Your task to perform on an android device: How do I get to the nearest Starbucks? Image 0: 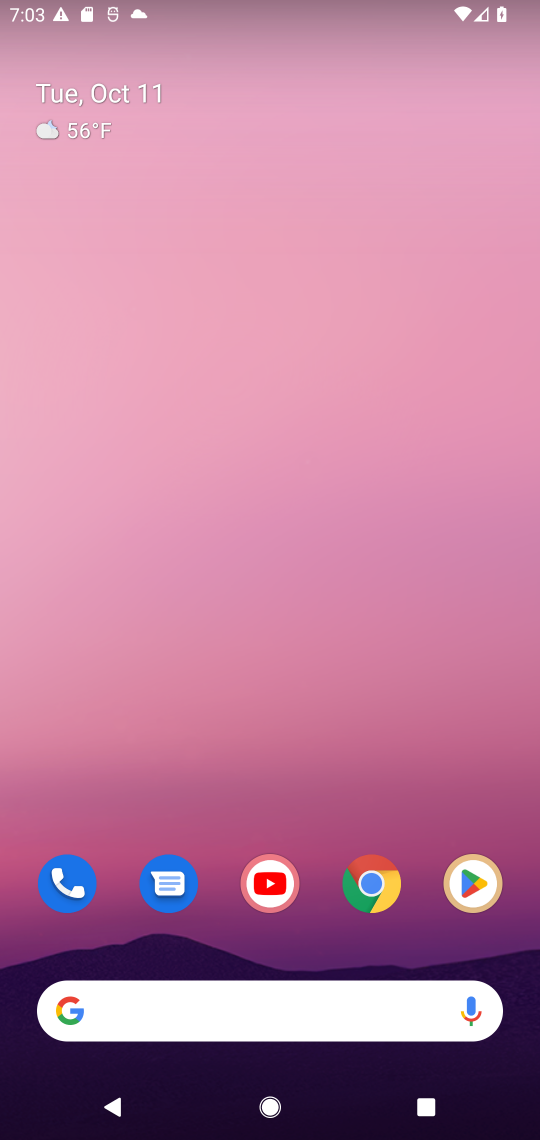
Step 0: drag from (314, 935) to (271, 10)
Your task to perform on an android device: How do I get to the nearest Starbucks? Image 1: 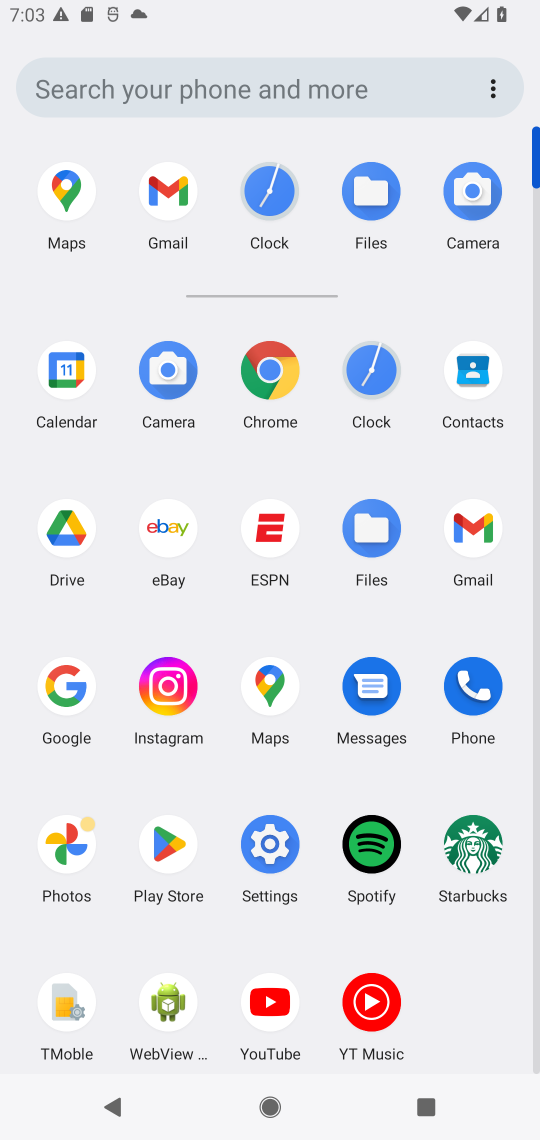
Step 1: click (270, 367)
Your task to perform on an android device: How do I get to the nearest Starbucks? Image 2: 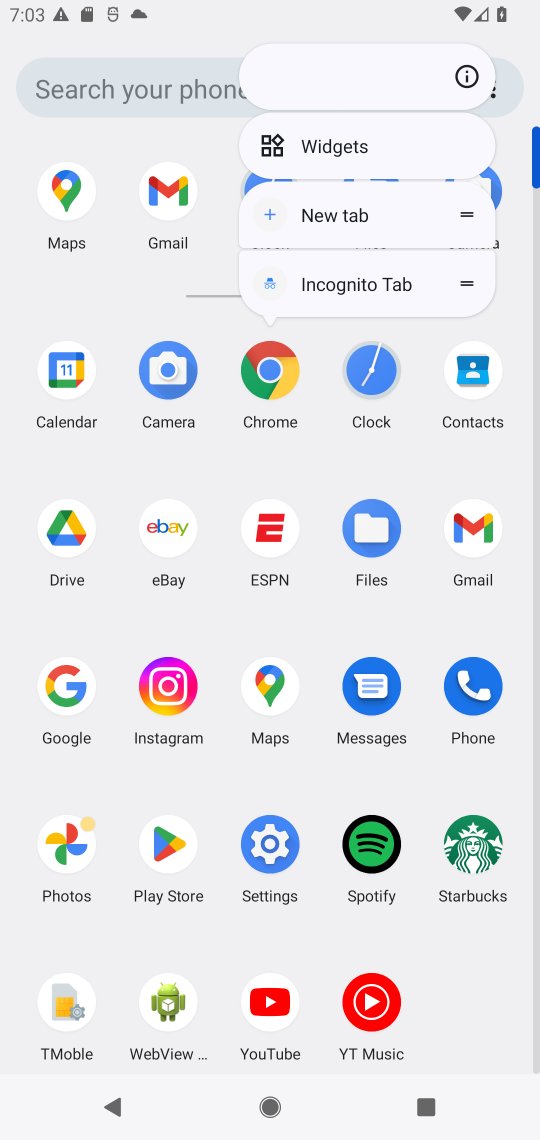
Step 2: click (270, 360)
Your task to perform on an android device: How do I get to the nearest Starbucks? Image 3: 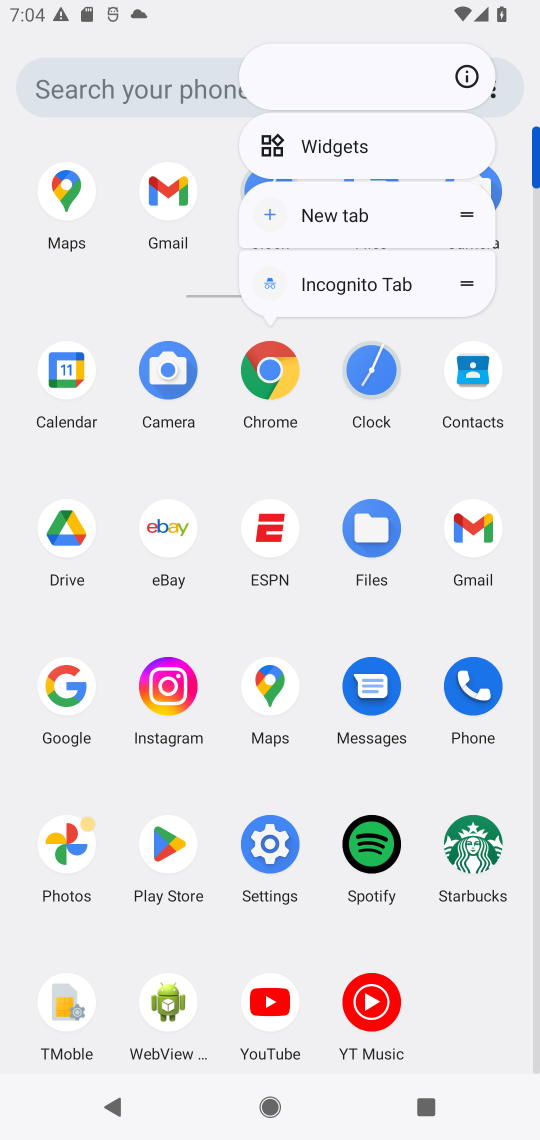
Step 3: click (272, 378)
Your task to perform on an android device: How do I get to the nearest Starbucks? Image 4: 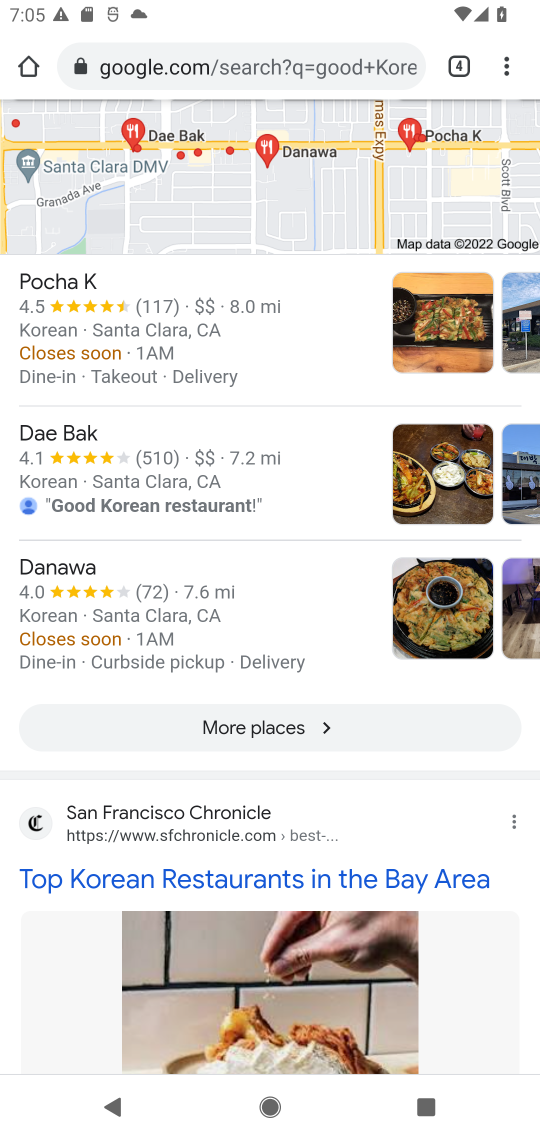
Step 4: click (263, 69)
Your task to perform on an android device: How do I get to the nearest Starbucks? Image 5: 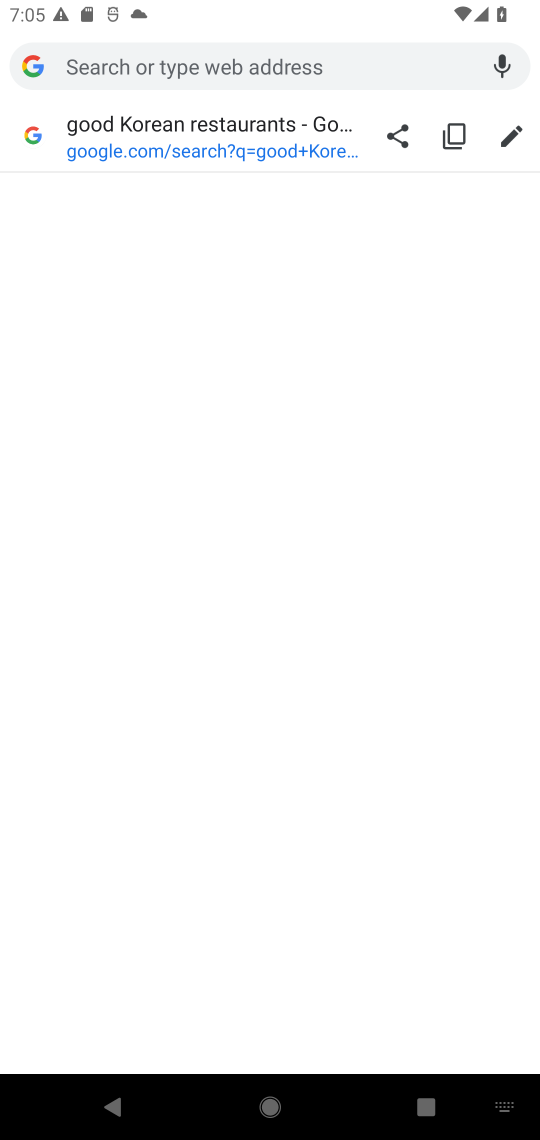
Step 5: type "How do I get to the nearest Starbucks?"
Your task to perform on an android device: How do I get to the nearest Starbucks? Image 6: 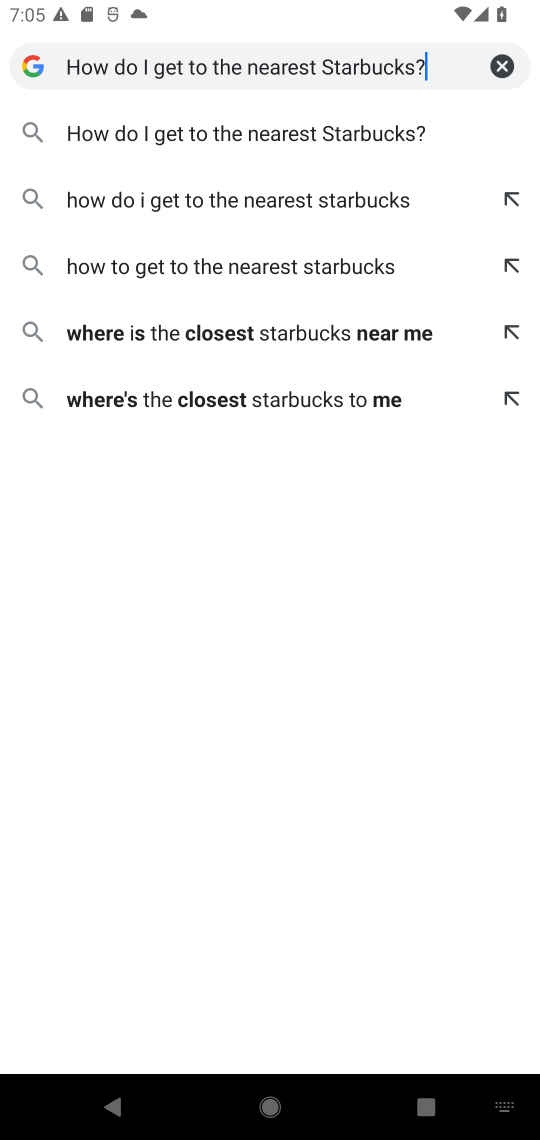
Step 6: press enter
Your task to perform on an android device: How do I get to the nearest Starbucks? Image 7: 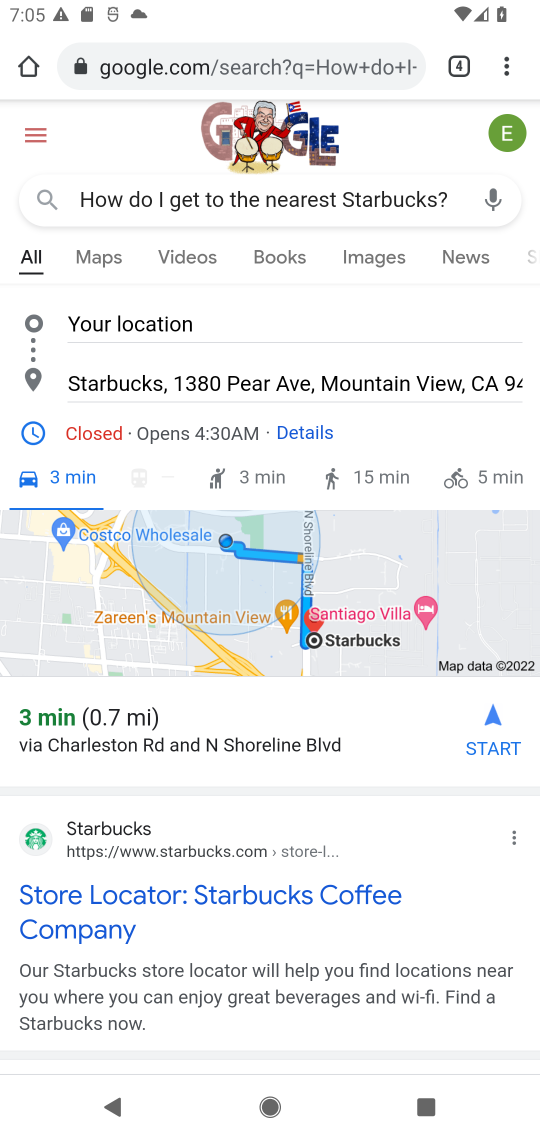
Step 7: task complete